Your task to perform on an android device: open the mobile data screen to see how much data has been used Image 0: 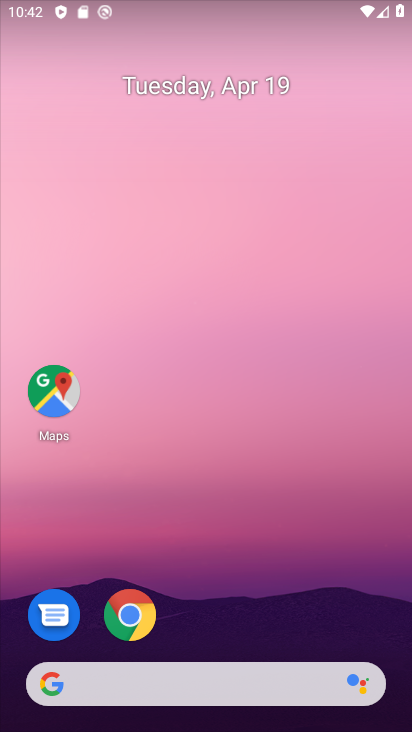
Step 0: drag from (207, 623) to (211, 83)
Your task to perform on an android device: open the mobile data screen to see how much data has been used Image 1: 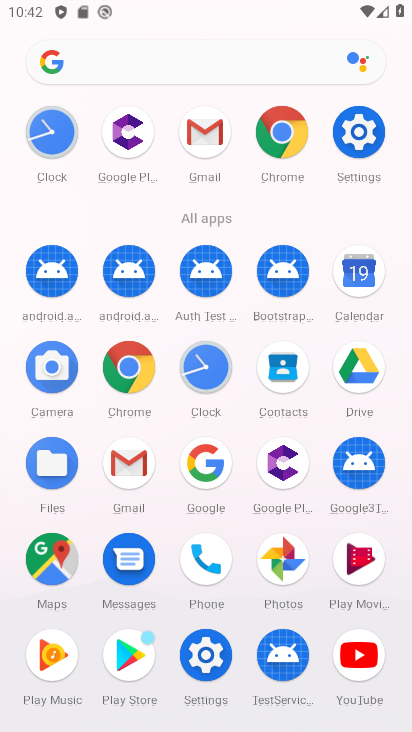
Step 1: click (363, 122)
Your task to perform on an android device: open the mobile data screen to see how much data has been used Image 2: 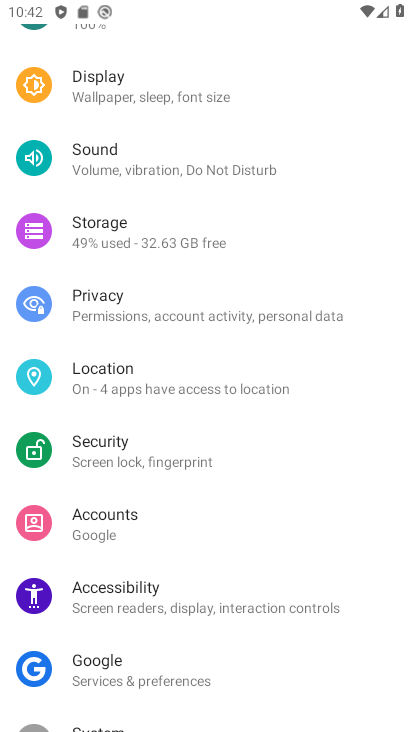
Step 2: drag from (165, 157) to (198, 507)
Your task to perform on an android device: open the mobile data screen to see how much data has been used Image 3: 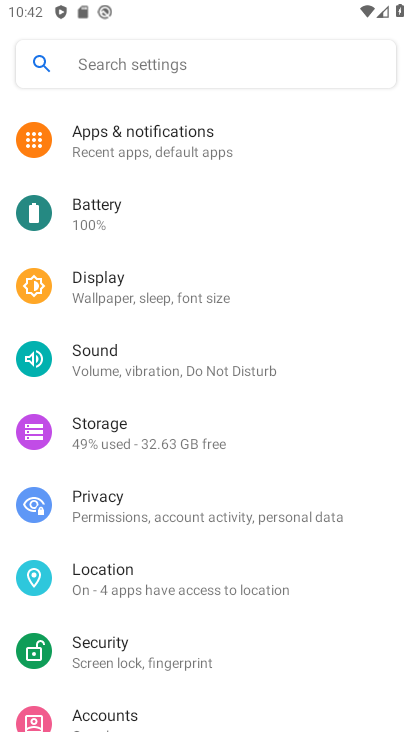
Step 3: drag from (168, 186) to (209, 520)
Your task to perform on an android device: open the mobile data screen to see how much data has been used Image 4: 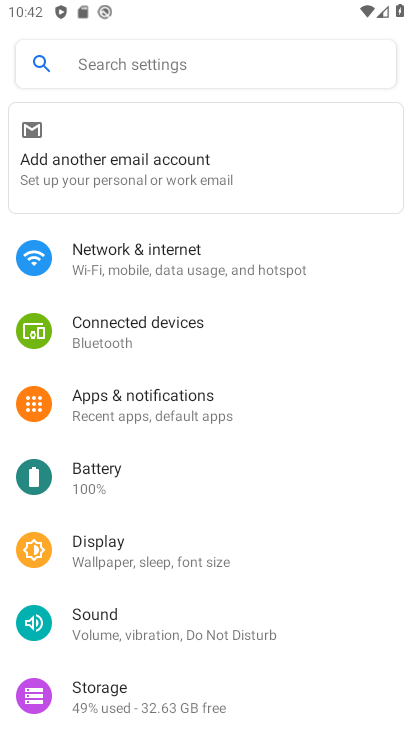
Step 4: drag from (207, 174) to (220, 549)
Your task to perform on an android device: open the mobile data screen to see how much data has been used Image 5: 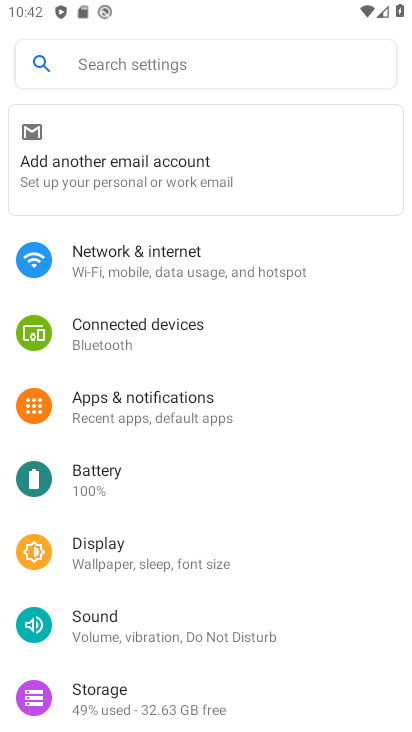
Step 5: click (160, 267)
Your task to perform on an android device: open the mobile data screen to see how much data has been used Image 6: 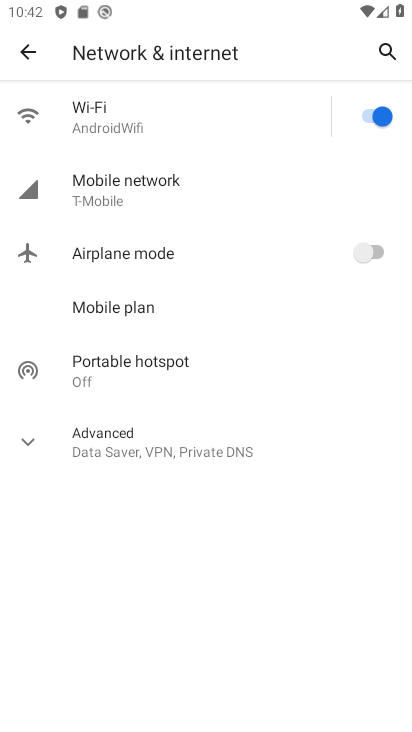
Step 6: click (160, 191)
Your task to perform on an android device: open the mobile data screen to see how much data has been used Image 7: 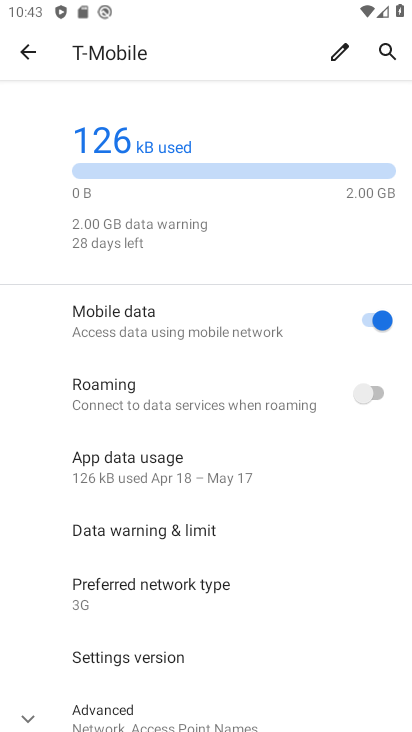
Step 7: task complete